Your task to perform on an android device: toggle location history Image 0: 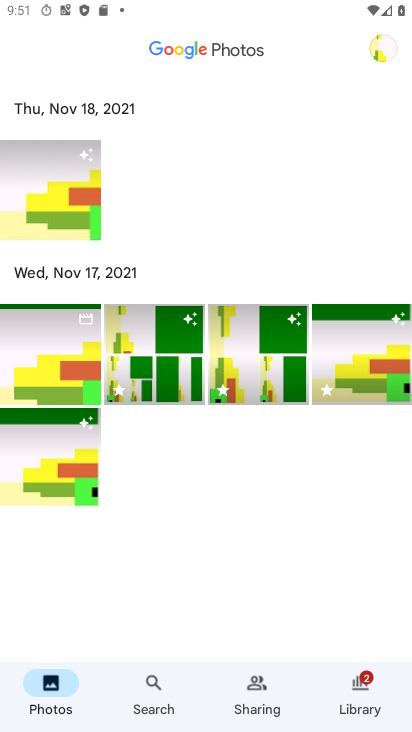
Step 0: press home button
Your task to perform on an android device: toggle location history Image 1: 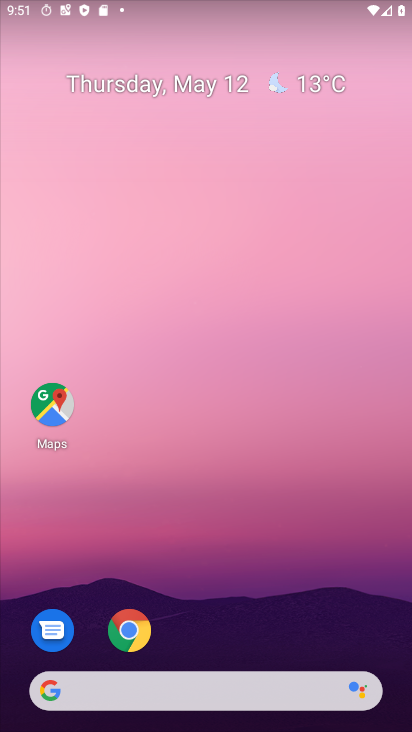
Step 1: drag from (198, 682) to (225, 163)
Your task to perform on an android device: toggle location history Image 2: 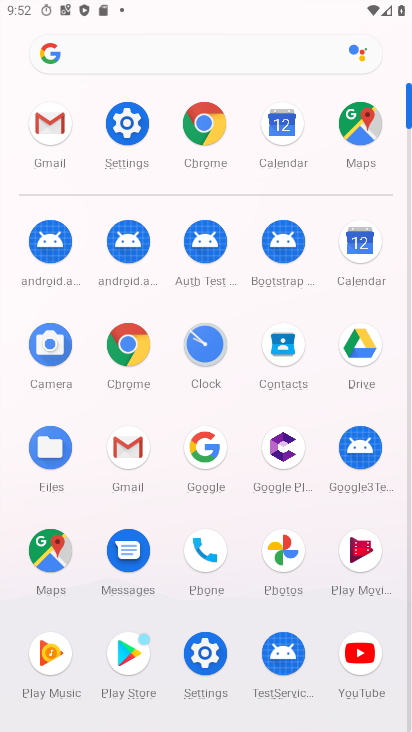
Step 2: click (212, 669)
Your task to perform on an android device: toggle location history Image 3: 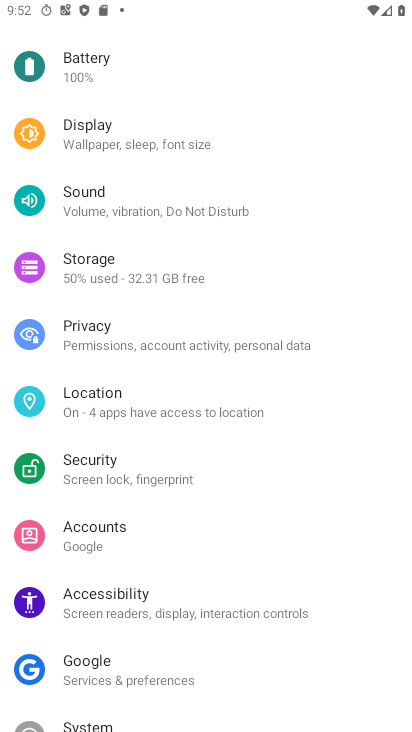
Step 3: click (119, 411)
Your task to perform on an android device: toggle location history Image 4: 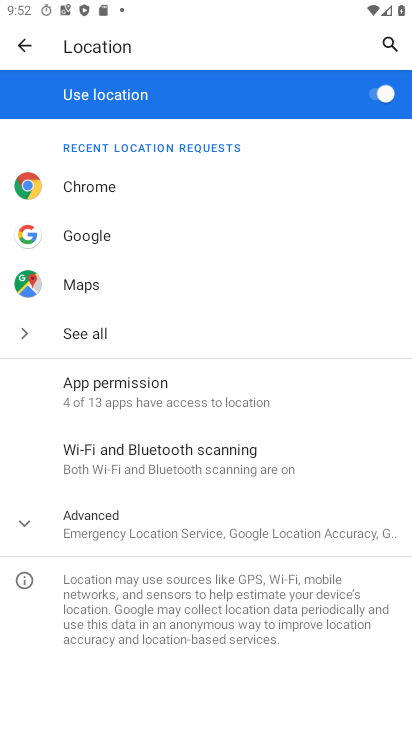
Step 4: click (160, 522)
Your task to perform on an android device: toggle location history Image 5: 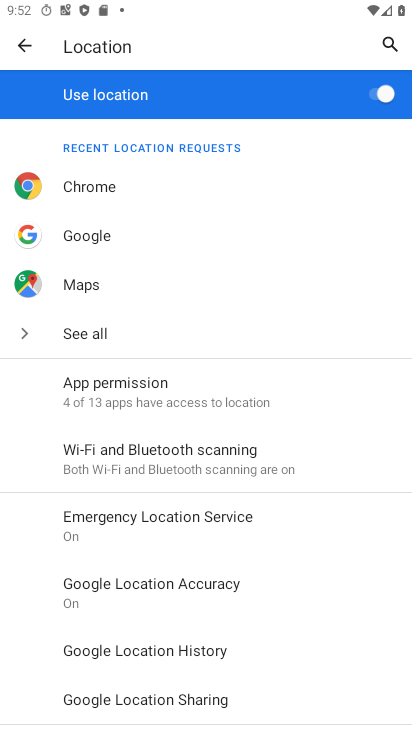
Step 5: click (187, 652)
Your task to perform on an android device: toggle location history Image 6: 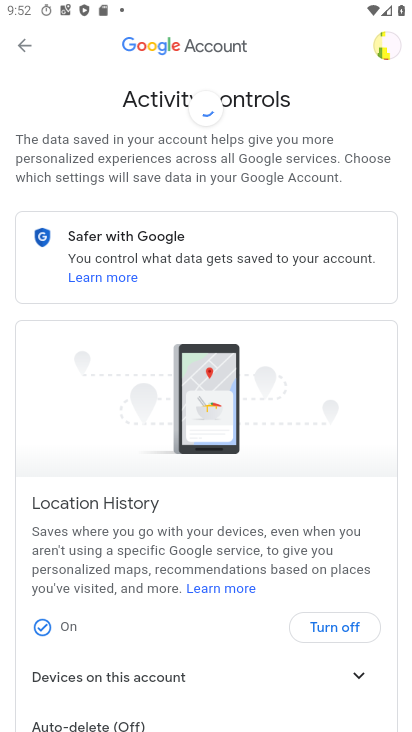
Step 6: drag from (300, 563) to (228, 211)
Your task to perform on an android device: toggle location history Image 7: 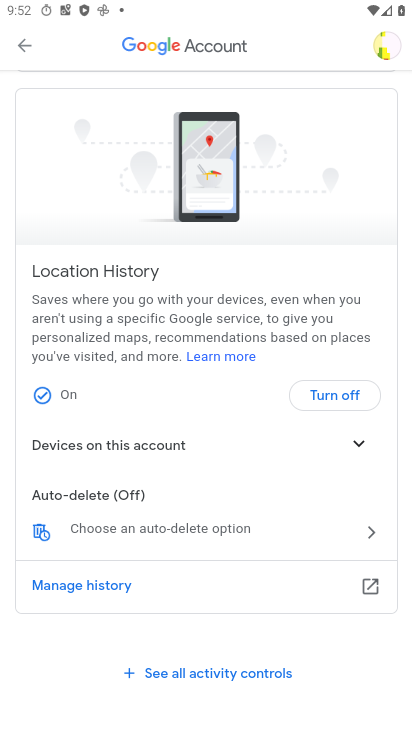
Step 7: click (335, 396)
Your task to perform on an android device: toggle location history Image 8: 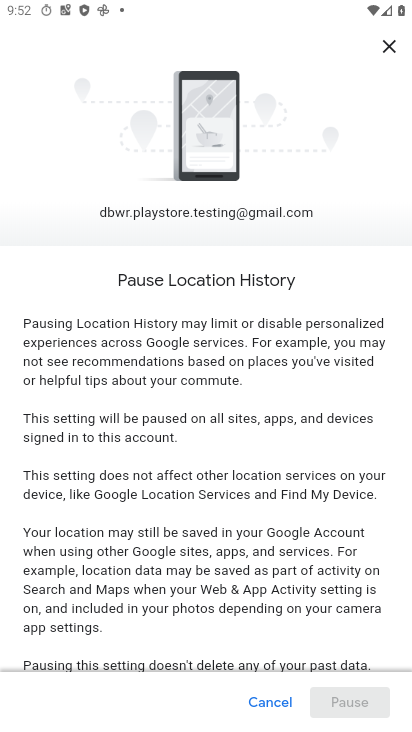
Step 8: drag from (314, 654) to (253, 27)
Your task to perform on an android device: toggle location history Image 9: 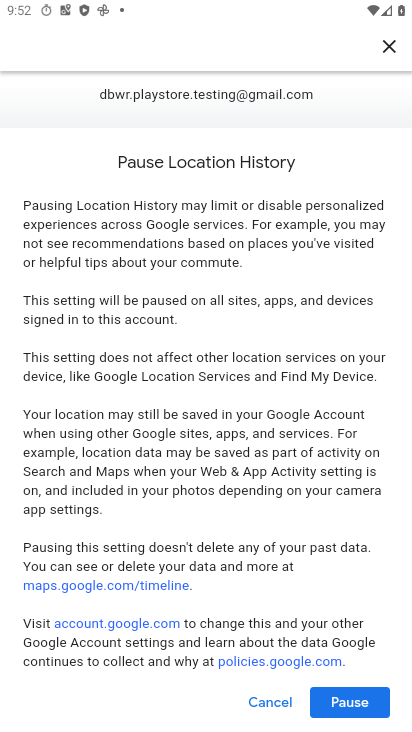
Step 9: click (347, 707)
Your task to perform on an android device: toggle location history Image 10: 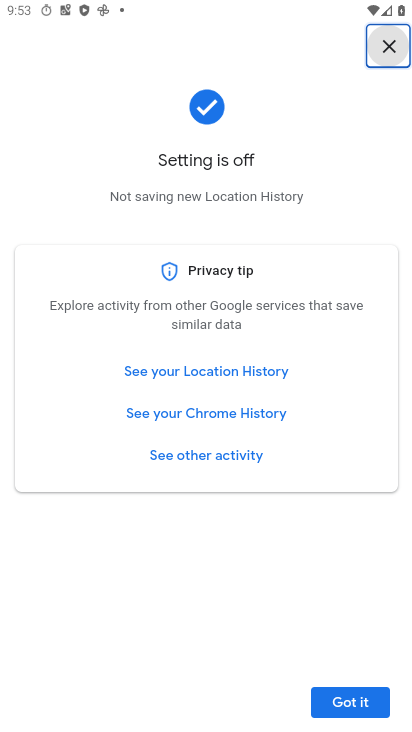
Step 10: click (359, 689)
Your task to perform on an android device: toggle location history Image 11: 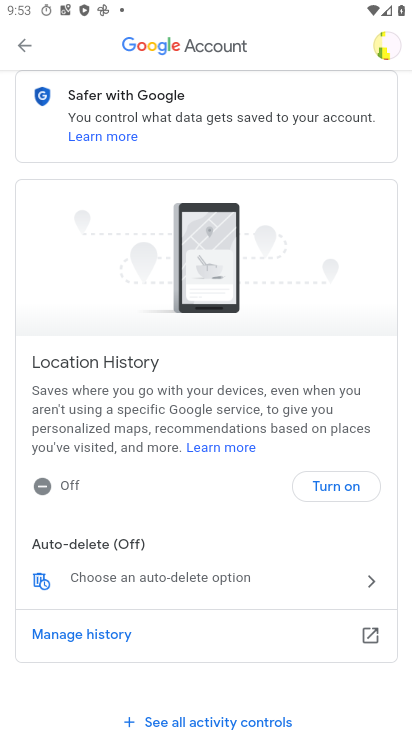
Step 11: task complete